Your task to perform on an android device: open chrome privacy settings Image 0: 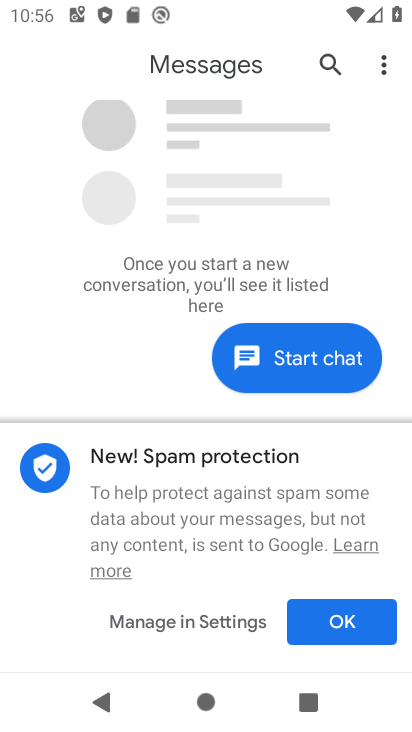
Step 0: press home button
Your task to perform on an android device: open chrome privacy settings Image 1: 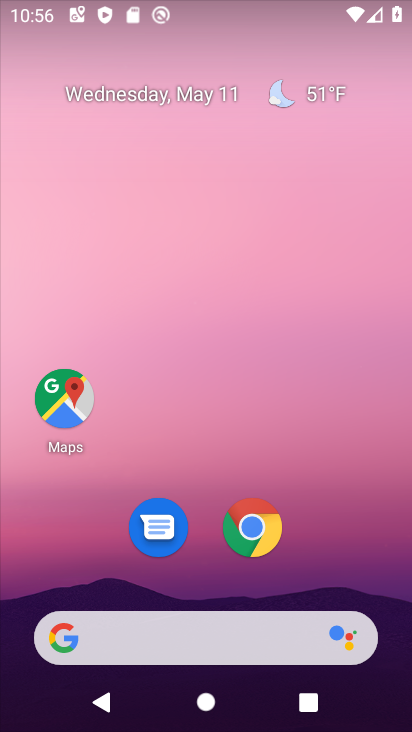
Step 1: click (260, 517)
Your task to perform on an android device: open chrome privacy settings Image 2: 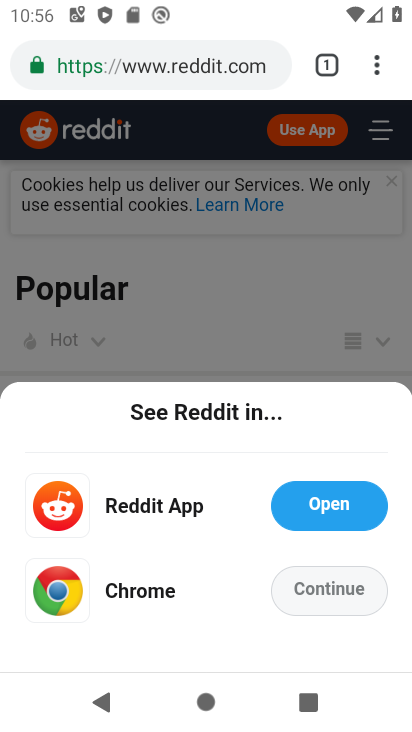
Step 2: click (375, 61)
Your task to perform on an android device: open chrome privacy settings Image 3: 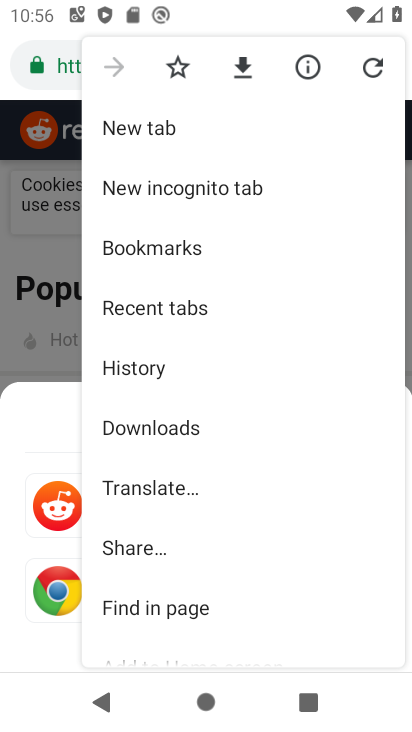
Step 3: drag from (151, 462) to (208, 237)
Your task to perform on an android device: open chrome privacy settings Image 4: 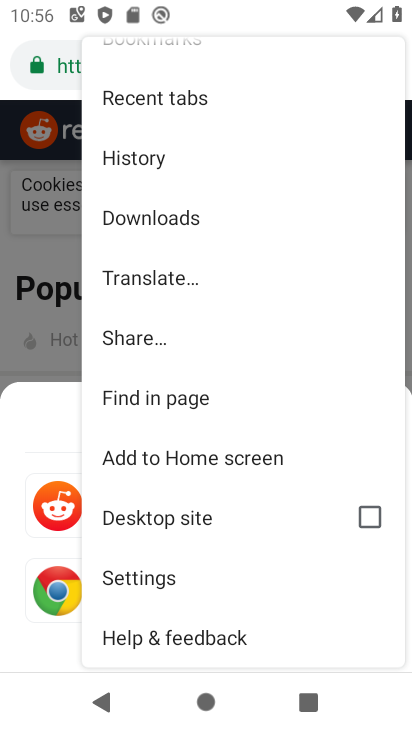
Step 4: click (130, 584)
Your task to perform on an android device: open chrome privacy settings Image 5: 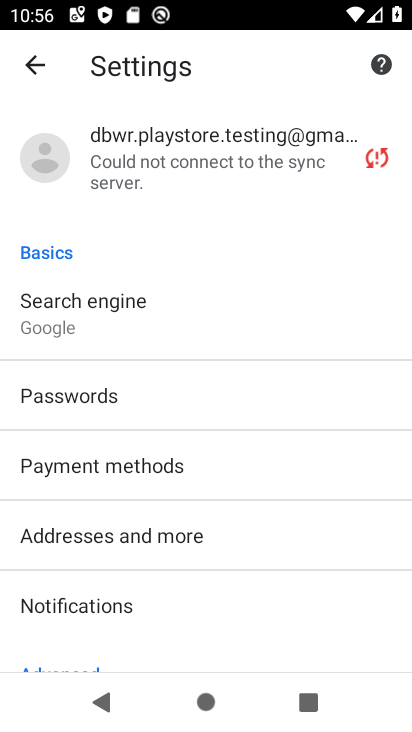
Step 5: drag from (110, 496) to (160, 273)
Your task to perform on an android device: open chrome privacy settings Image 6: 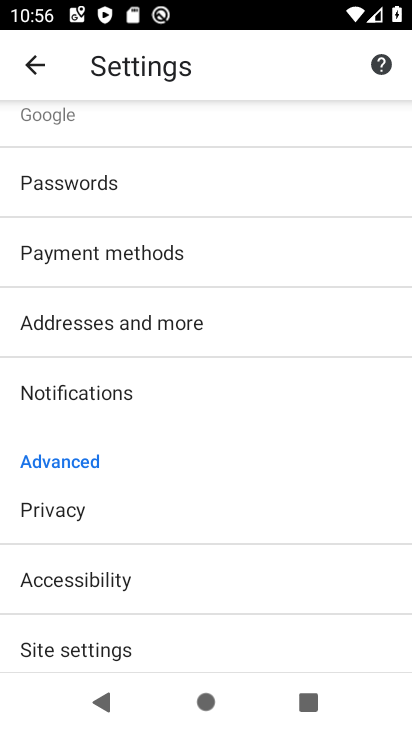
Step 6: click (45, 506)
Your task to perform on an android device: open chrome privacy settings Image 7: 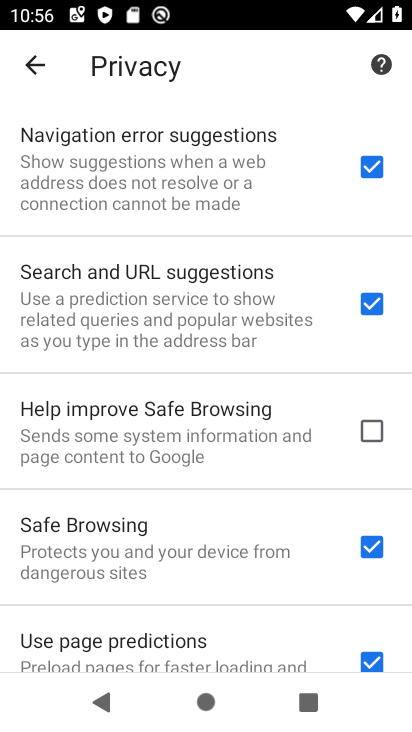
Step 7: task complete